Your task to perform on an android device: turn off translation in the chrome app Image 0: 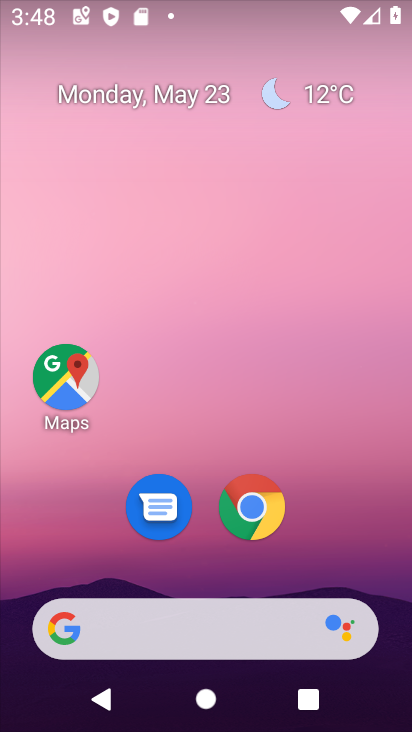
Step 0: click (254, 508)
Your task to perform on an android device: turn off translation in the chrome app Image 1: 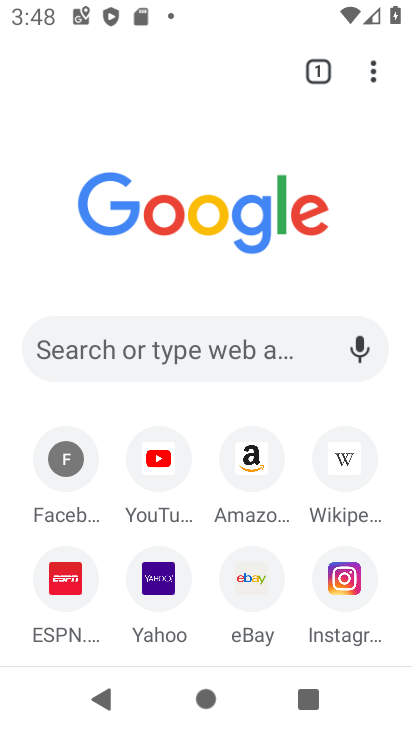
Step 1: click (362, 78)
Your task to perform on an android device: turn off translation in the chrome app Image 2: 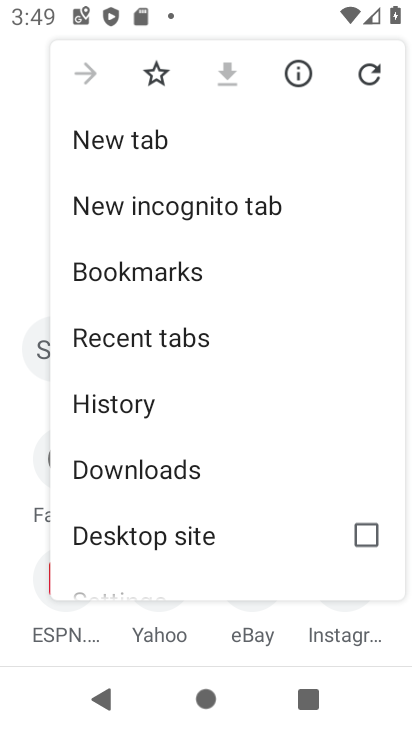
Step 2: drag from (129, 550) to (223, 148)
Your task to perform on an android device: turn off translation in the chrome app Image 3: 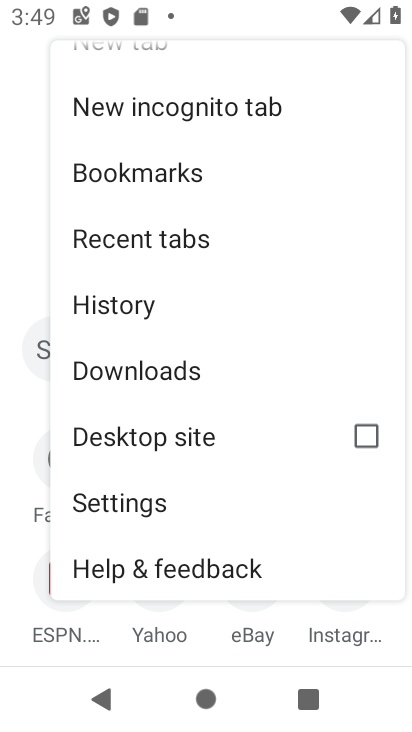
Step 3: drag from (115, 536) to (248, 215)
Your task to perform on an android device: turn off translation in the chrome app Image 4: 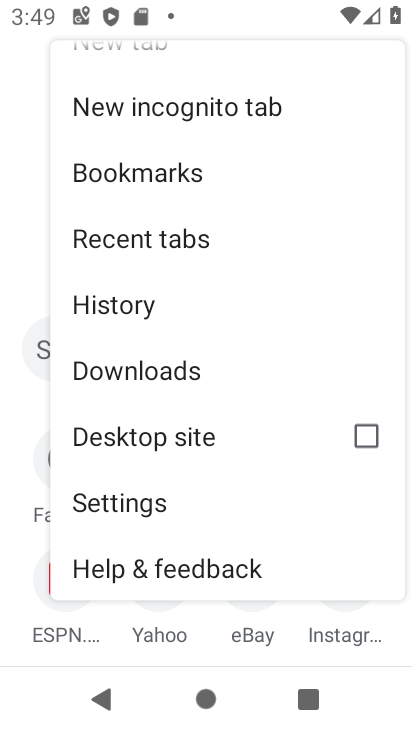
Step 4: click (134, 517)
Your task to perform on an android device: turn off translation in the chrome app Image 5: 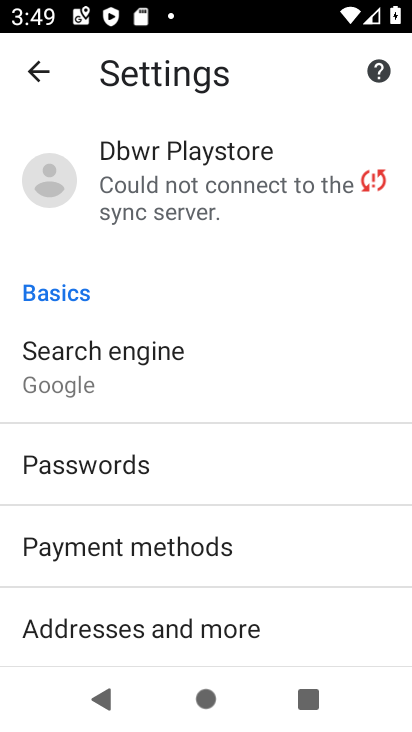
Step 5: drag from (78, 598) to (316, 110)
Your task to perform on an android device: turn off translation in the chrome app Image 6: 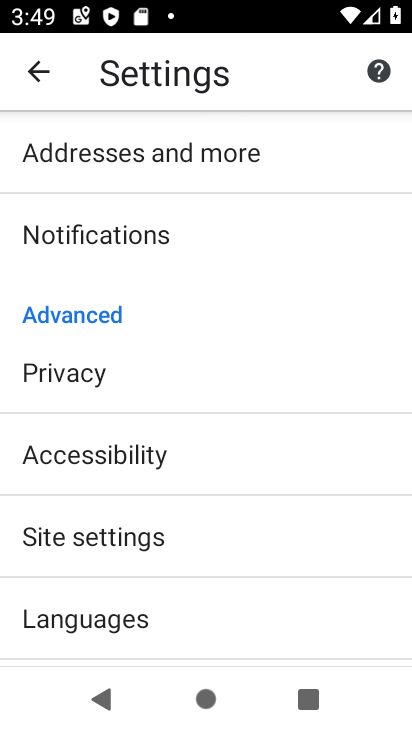
Step 6: click (105, 646)
Your task to perform on an android device: turn off translation in the chrome app Image 7: 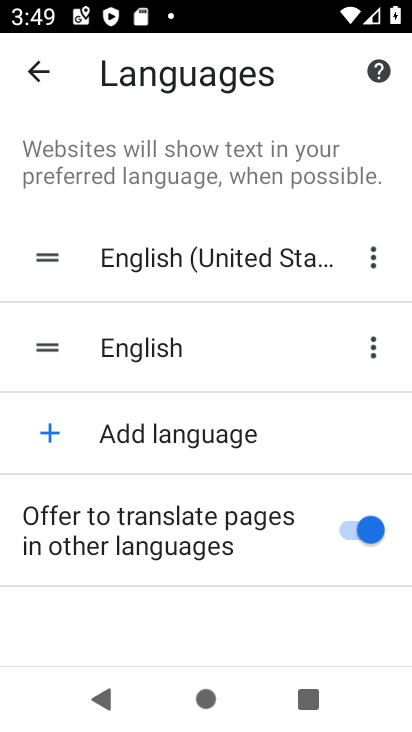
Step 7: click (334, 530)
Your task to perform on an android device: turn off translation in the chrome app Image 8: 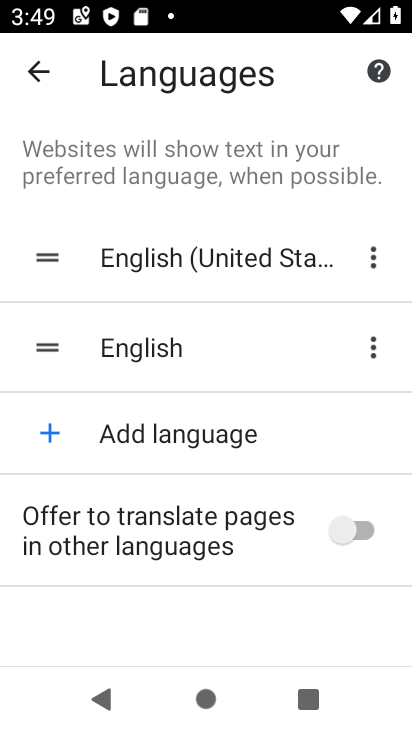
Step 8: task complete